Your task to perform on an android device: turn on translation in the chrome app Image 0: 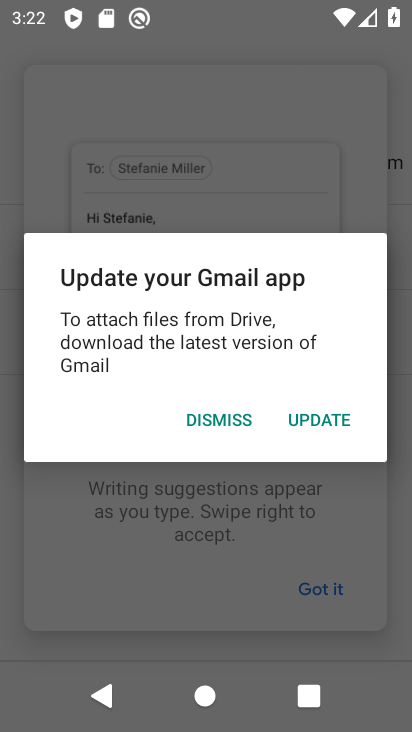
Step 0: press back button
Your task to perform on an android device: turn on translation in the chrome app Image 1: 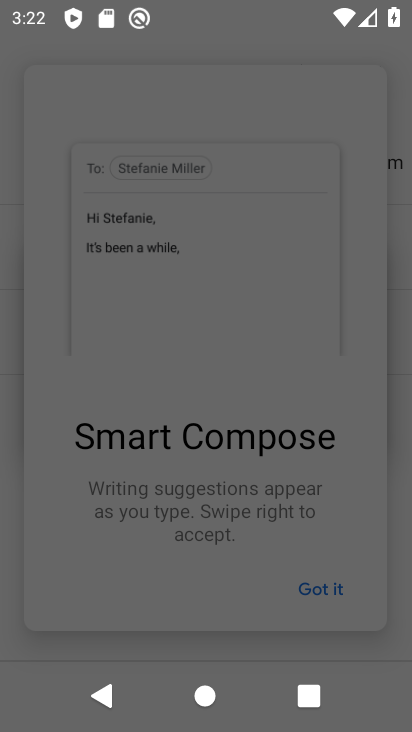
Step 1: press back button
Your task to perform on an android device: turn on translation in the chrome app Image 2: 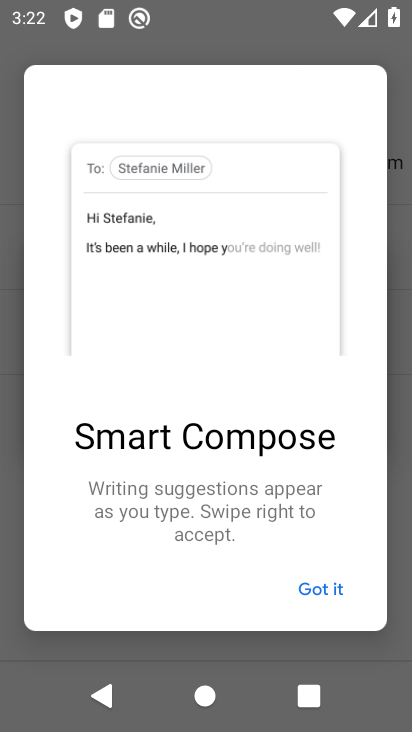
Step 2: press back button
Your task to perform on an android device: turn on translation in the chrome app Image 3: 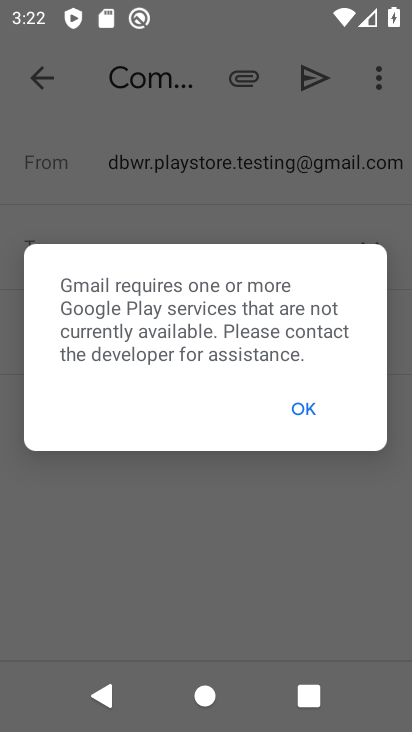
Step 3: press home button
Your task to perform on an android device: turn on translation in the chrome app Image 4: 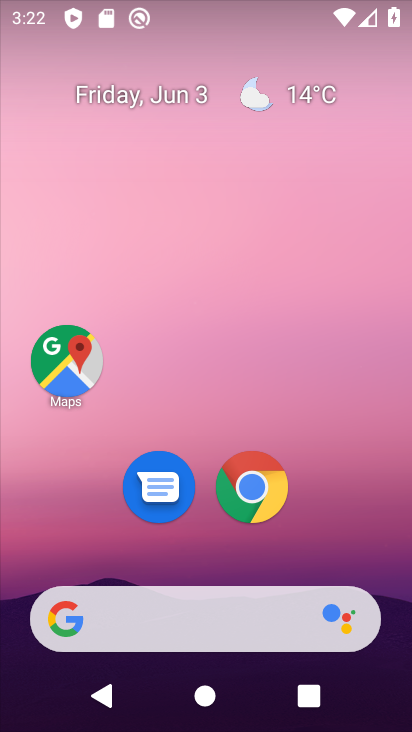
Step 4: click (248, 493)
Your task to perform on an android device: turn on translation in the chrome app Image 5: 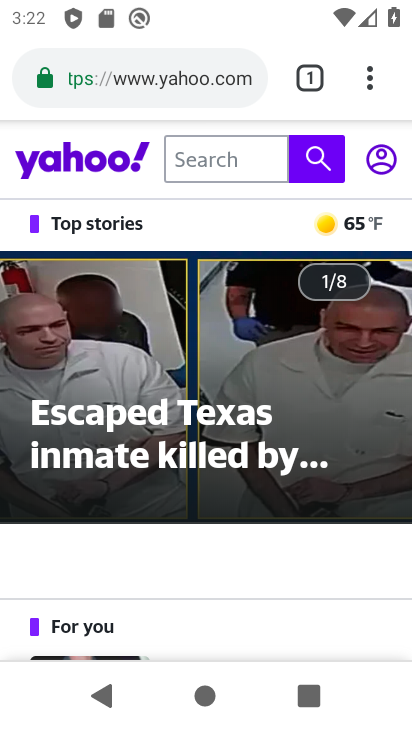
Step 5: drag from (369, 75) to (117, 549)
Your task to perform on an android device: turn on translation in the chrome app Image 6: 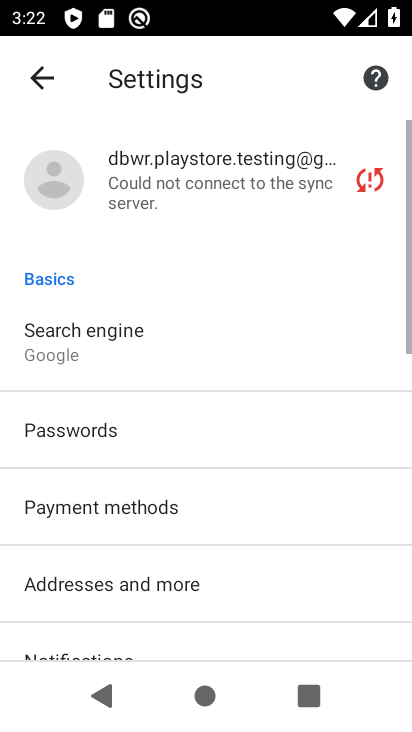
Step 6: drag from (117, 620) to (195, 144)
Your task to perform on an android device: turn on translation in the chrome app Image 7: 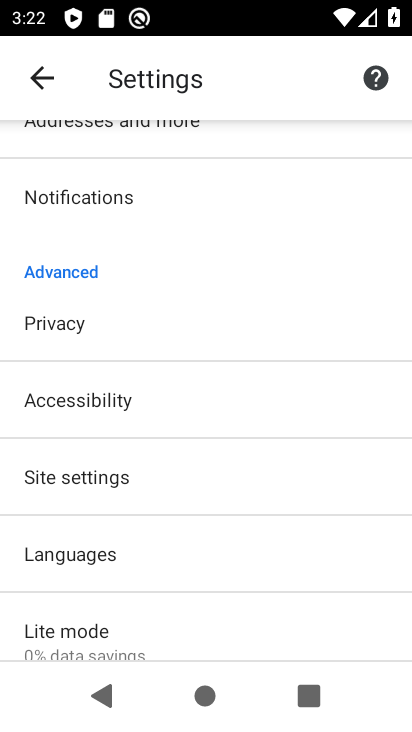
Step 7: click (77, 564)
Your task to perform on an android device: turn on translation in the chrome app Image 8: 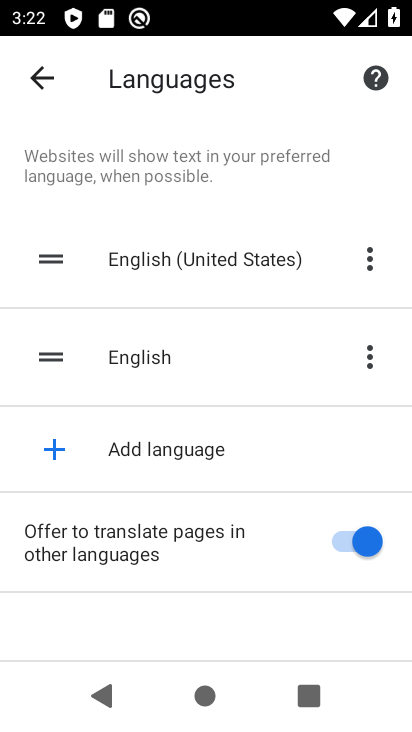
Step 8: task complete